Your task to perform on an android device: check storage Image 0: 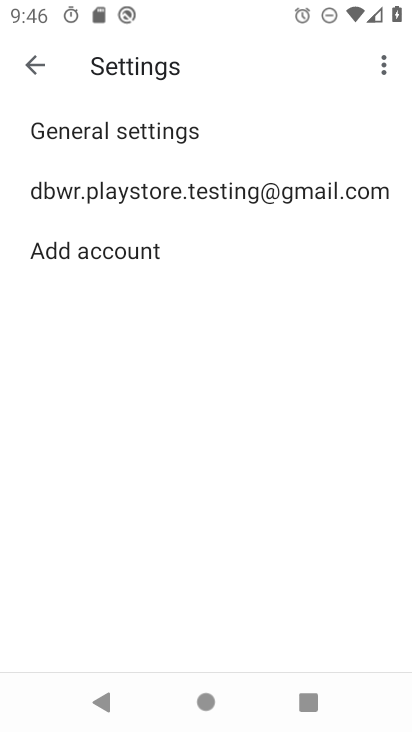
Step 0: press home button
Your task to perform on an android device: check storage Image 1: 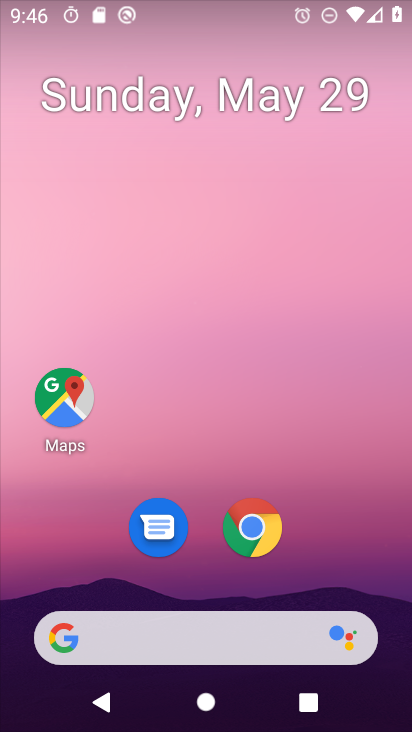
Step 1: drag from (386, 698) to (291, 0)
Your task to perform on an android device: check storage Image 2: 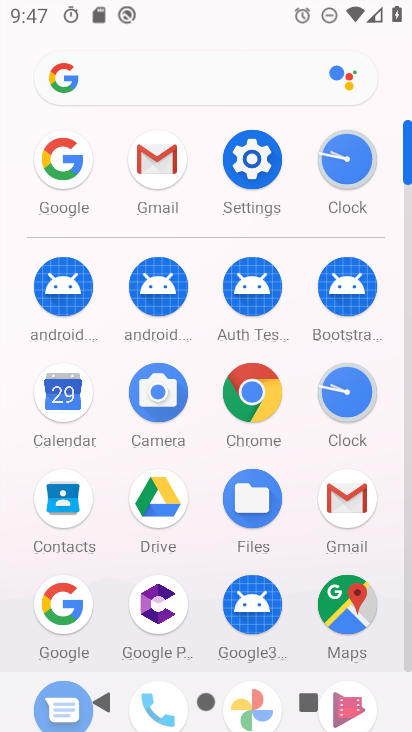
Step 2: click (272, 185)
Your task to perform on an android device: check storage Image 3: 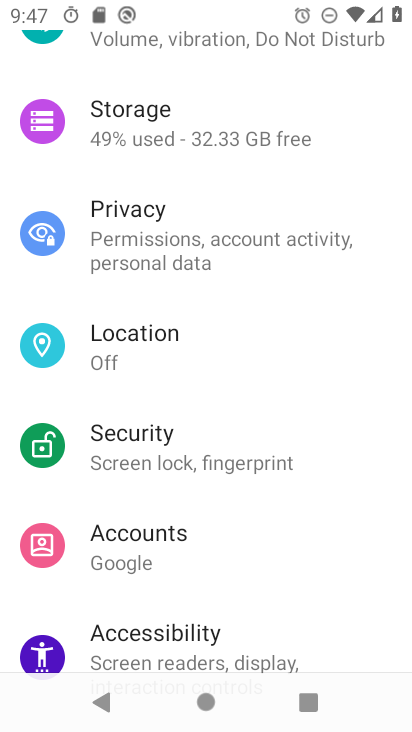
Step 3: click (208, 143)
Your task to perform on an android device: check storage Image 4: 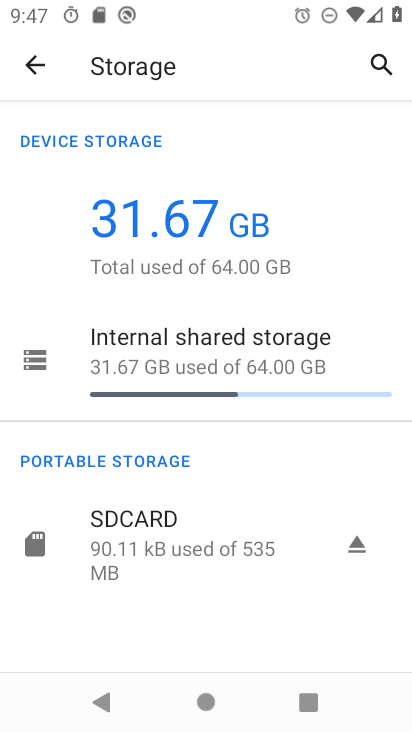
Step 4: click (203, 356)
Your task to perform on an android device: check storage Image 5: 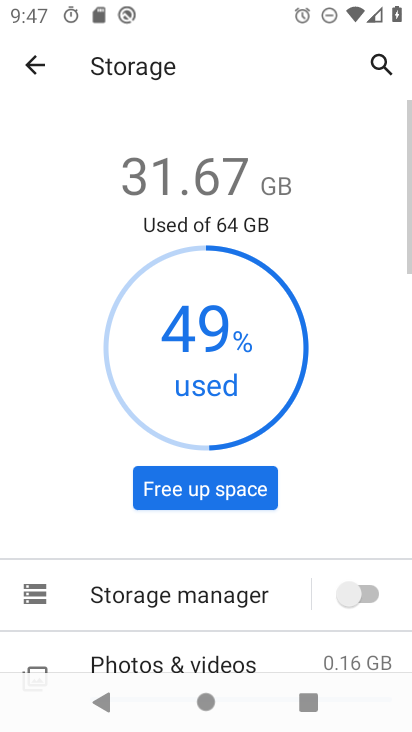
Step 5: task complete